Your task to perform on an android device: check battery use Image 0: 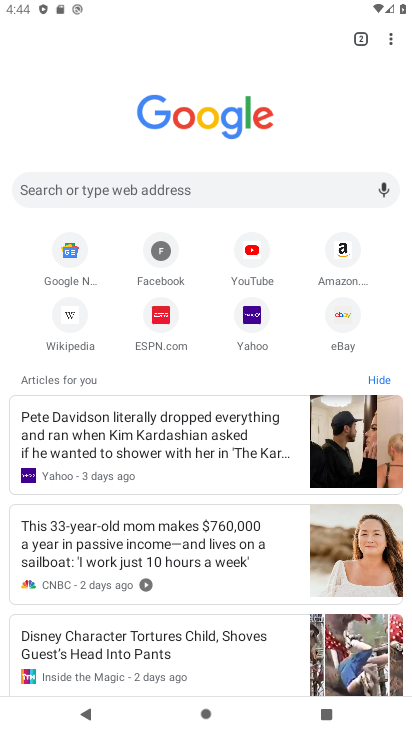
Step 0: press home button
Your task to perform on an android device: check battery use Image 1: 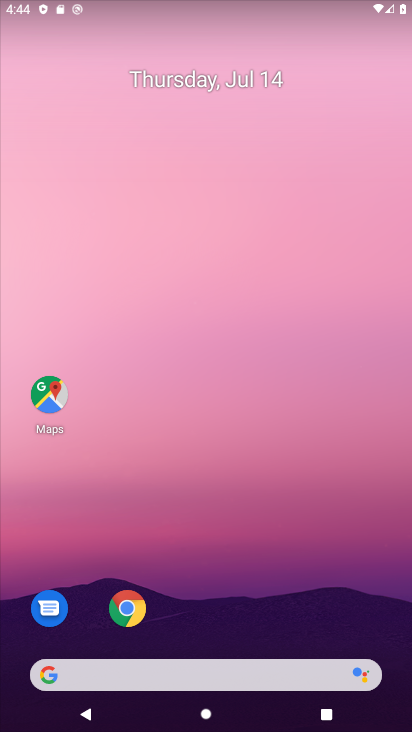
Step 1: drag from (332, 617) to (253, 112)
Your task to perform on an android device: check battery use Image 2: 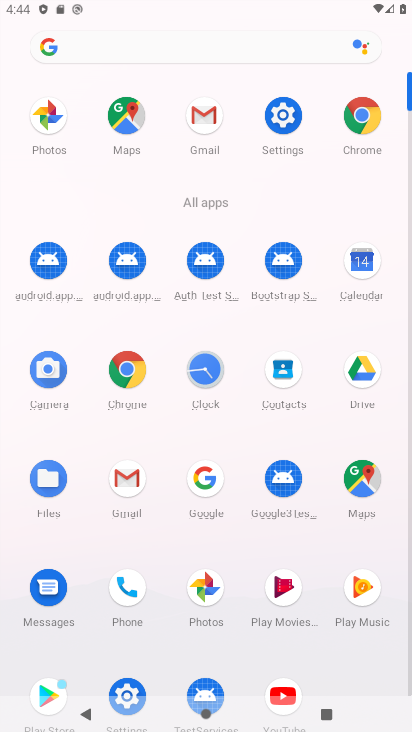
Step 2: click (281, 108)
Your task to perform on an android device: check battery use Image 3: 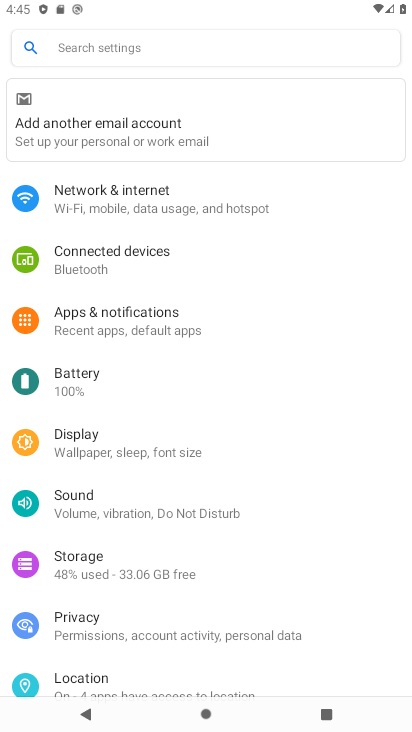
Step 3: click (84, 377)
Your task to perform on an android device: check battery use Image 4: 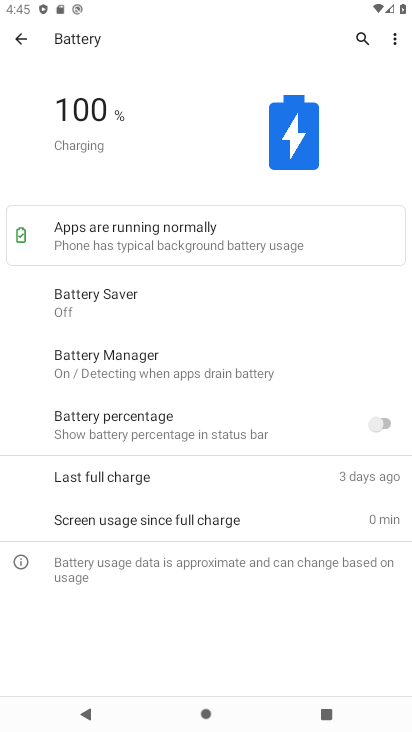
Step 4: click (399, 32)
Your task to perform on an android device: check battery use Image 5: 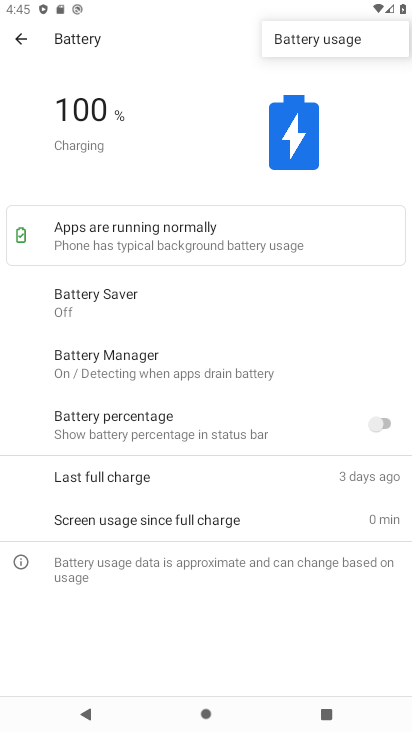
Step 5: click (321, 43)
Your task to perform on an android device: check battery use Image 6: 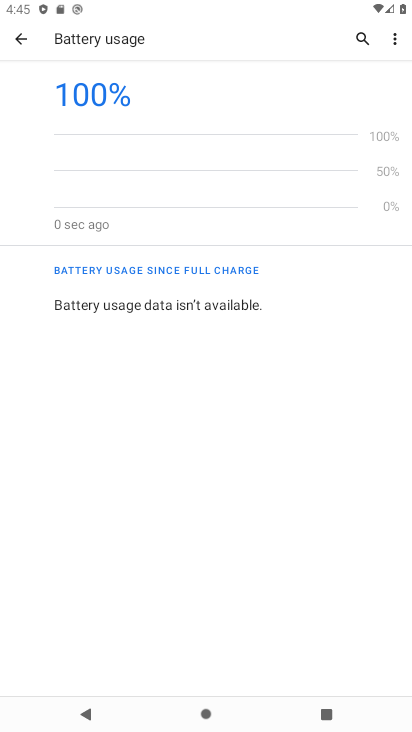
Step 6: task complete